Your task to perform on an android device: turn smart compose on in the gmail app Image 0: 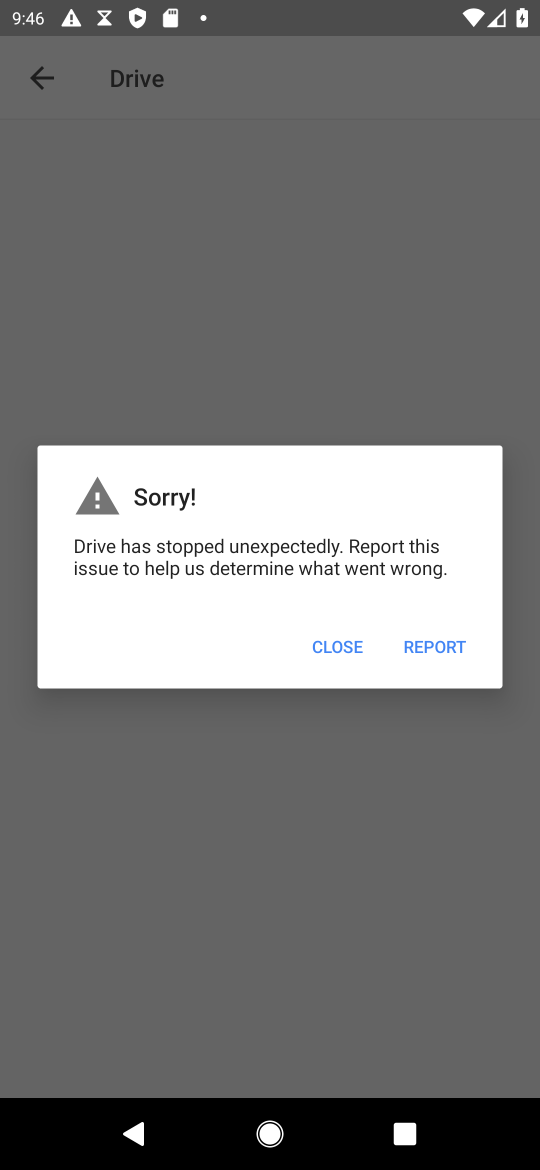
Step 0: press home button
Your task to perform on an android device: turn smart compose on in the gmail app Image 1: 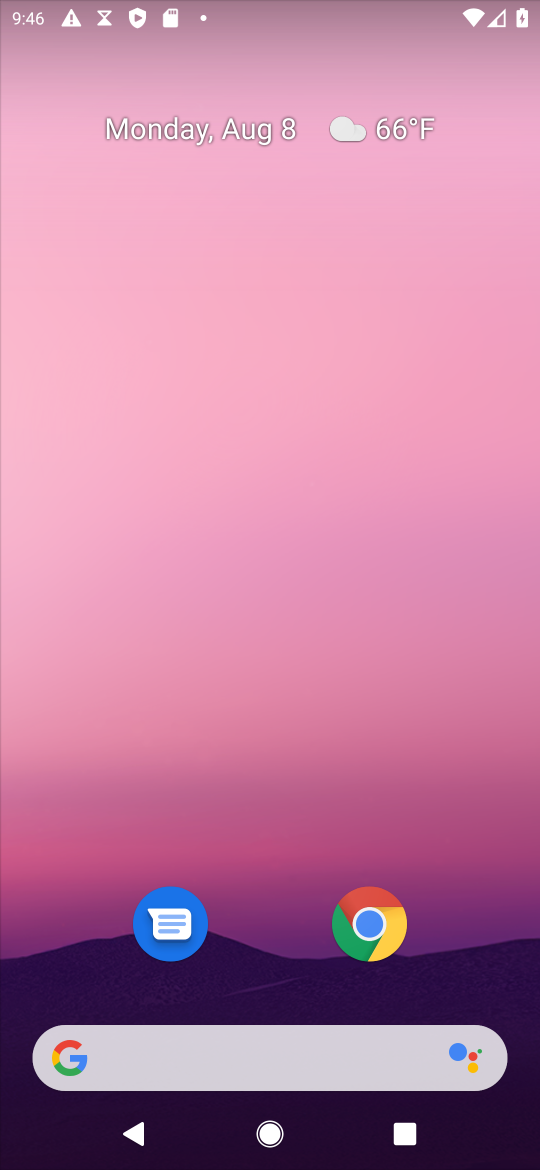
Step 1: drag from (294, 965) to (294, 222)
Your task to perform on an android device: turn smart compose on in the gmail app Image 2: 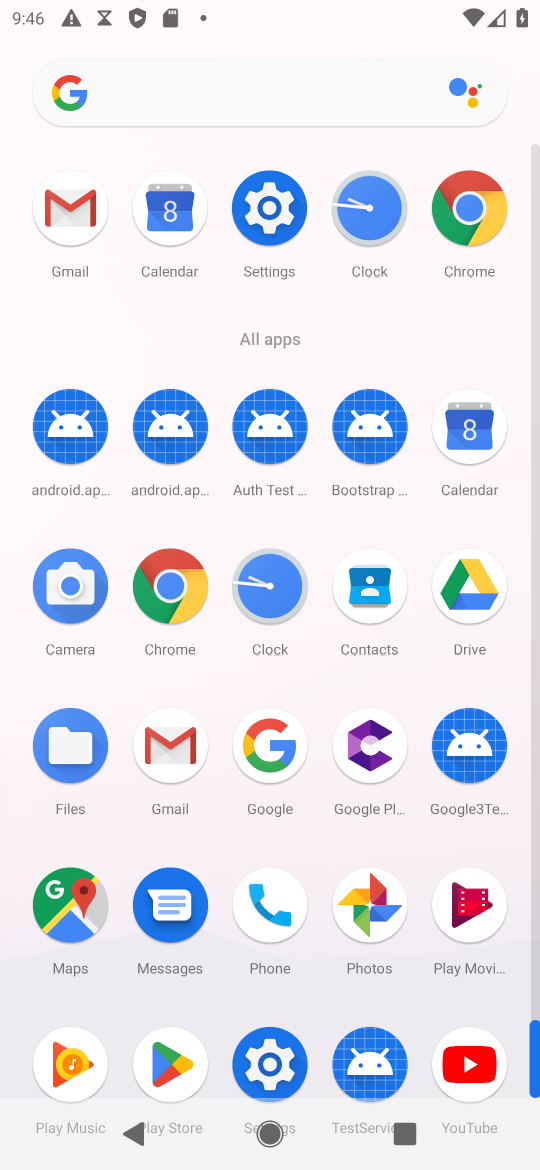
Step 2: click (172, 737)
Your task to perform on an android device: turn smart compose on in the gmail app Image 3: 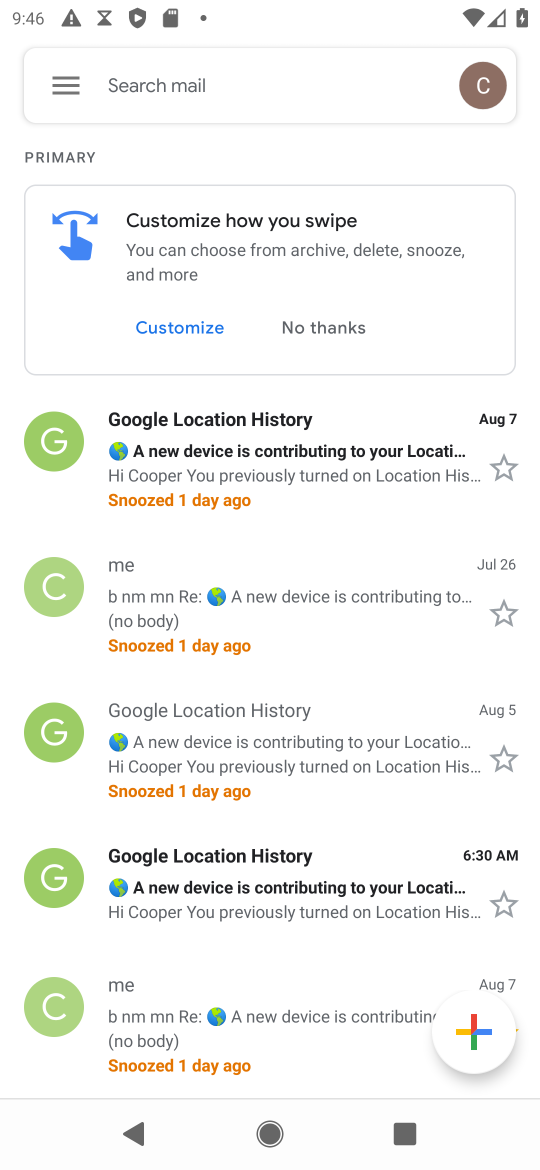
Step 3: click (64, 85)
Your task to perform on an android device: turn smart compose on in the gmail app Image 4: 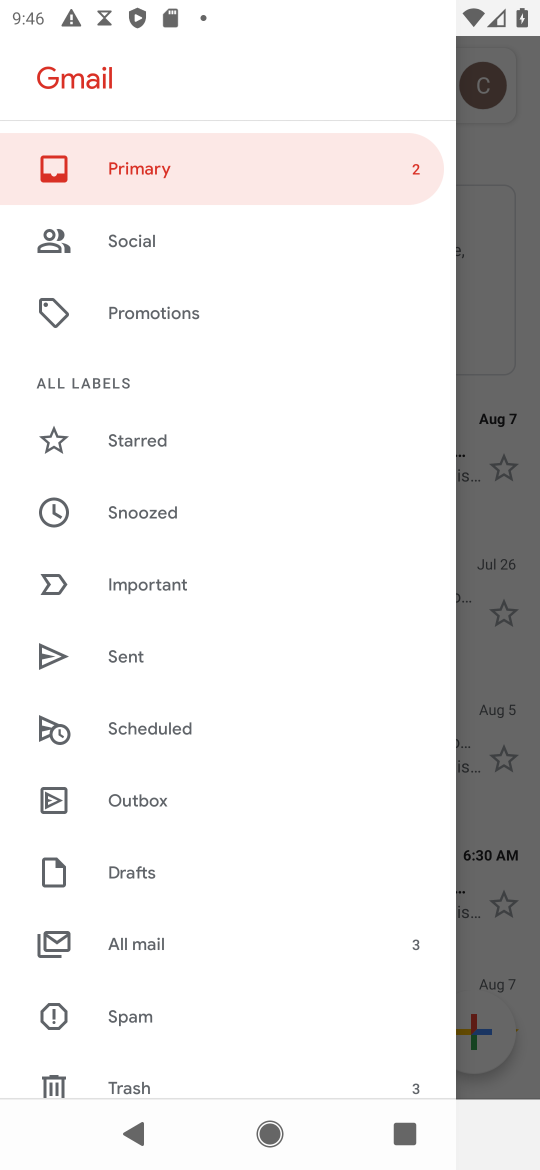
Step 4: drag from (171, 1012) to (196, 286)
Your task to perform on an android device: turn smart compose on in the gmail app Image 5: 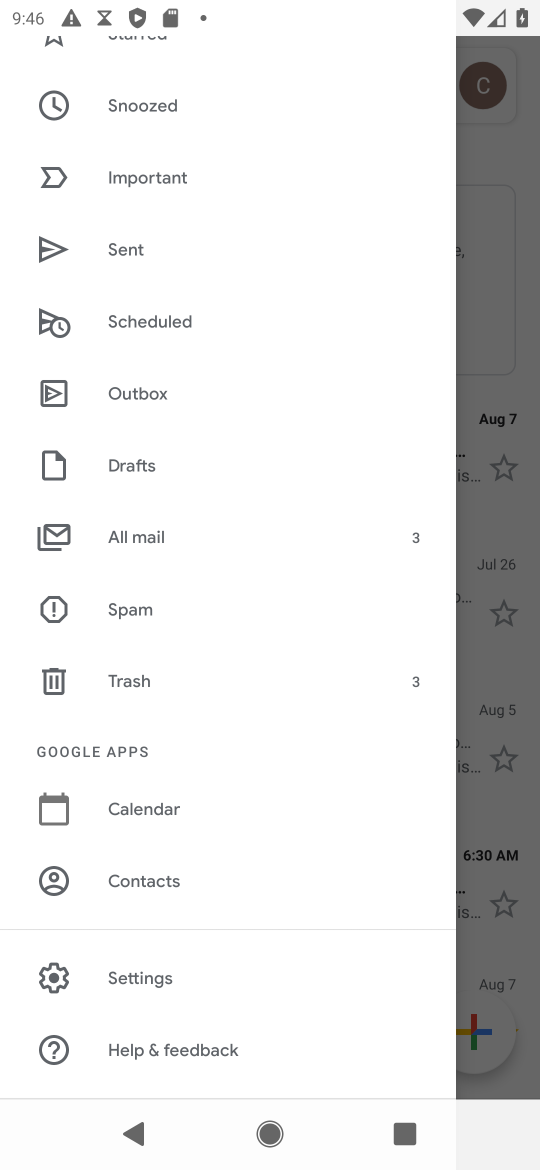
Step 5: click (132, 979)
Your task to perform on an android device: turn smart compose on in the gmail app Image 6: 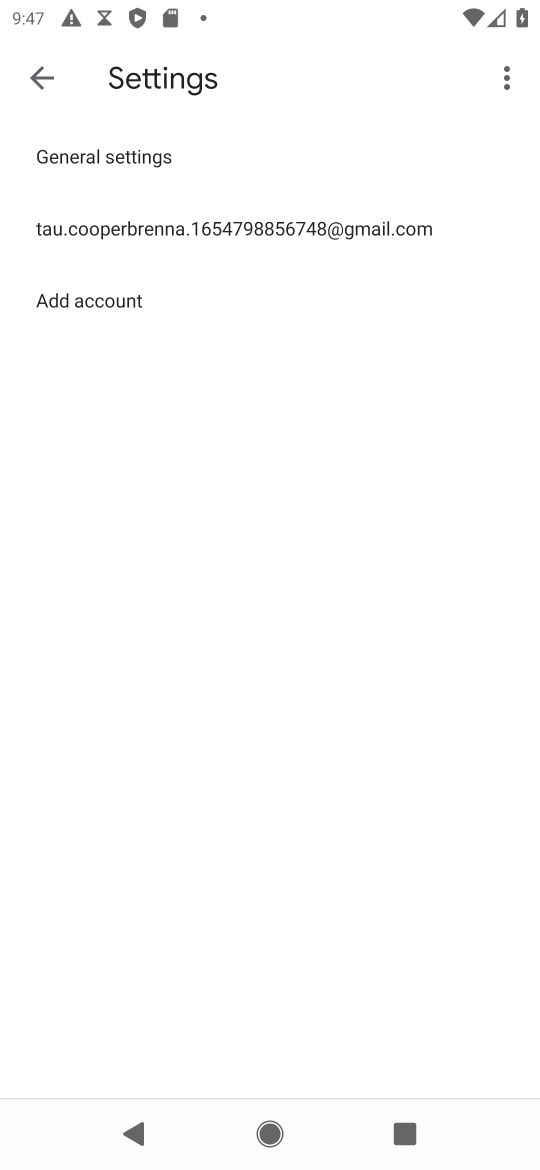
Step 6: click (204, 227)
Your task to perform on an android device: turn smart compose on in the gmail app Image 7: 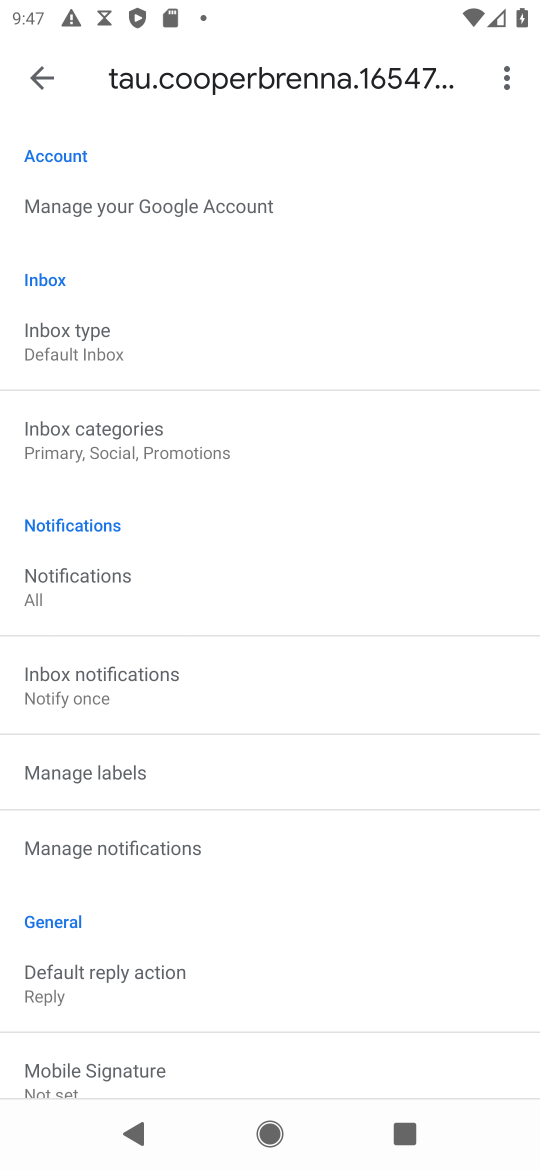
Step 7: drag from (203, 1054) to (128, 346)
Your task to perform on an android device: turn smart compose on in the gmail app Image 8: 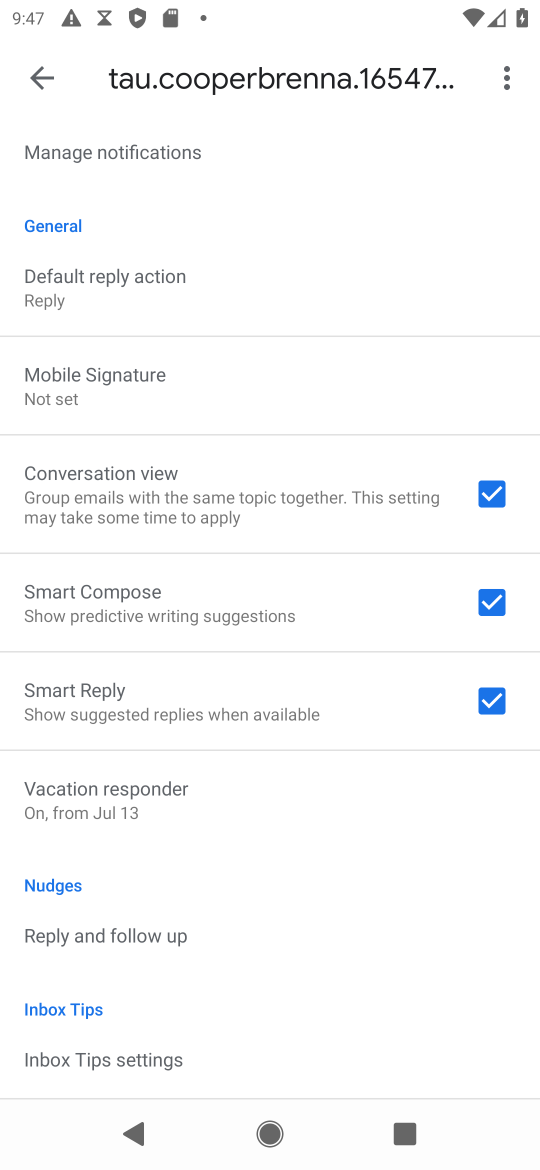
Step 8: click (469, 599)
Your task to perform on an android device: turn smart compose on in the gmail app Image 9: 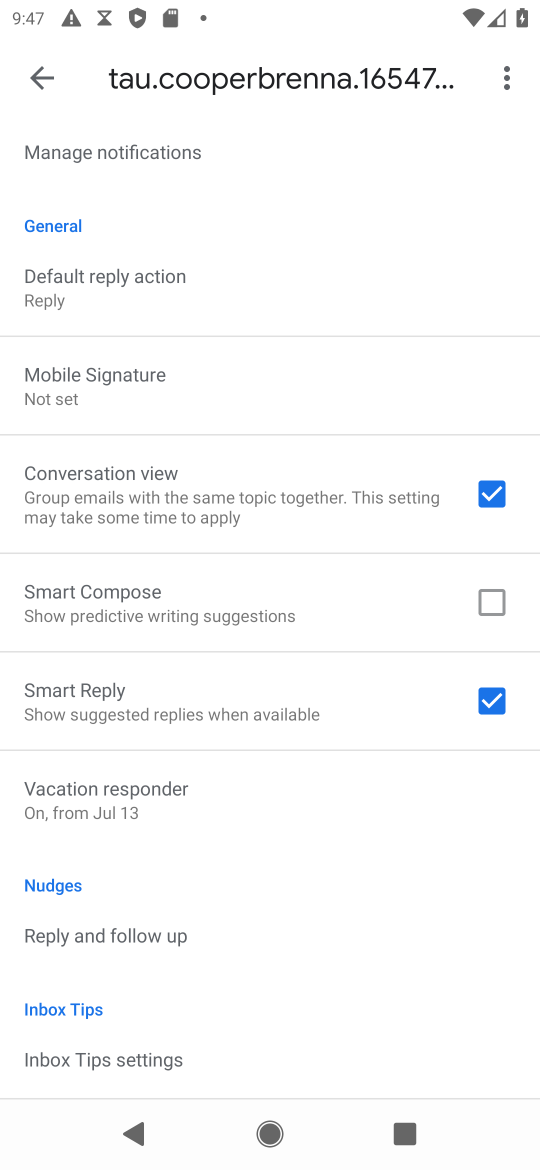
Step 9: click (441, 611)
Your task to perform on an android device: turn smart compose on in the gmail app Image 10: 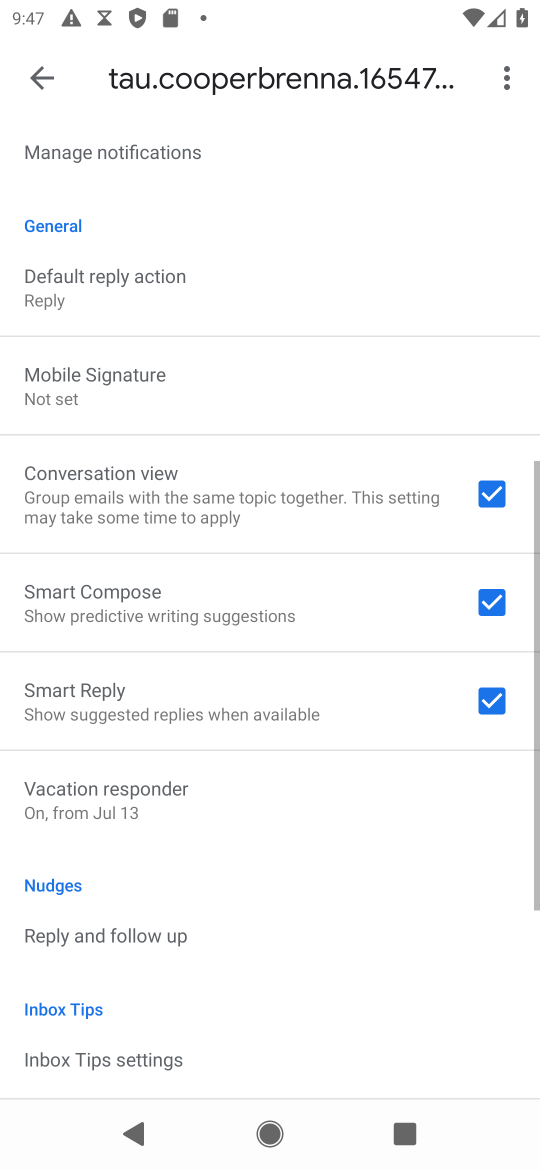
Step 10: task complete